Your task to perform on an android device: toggle data saver in the chrome app Image 0: 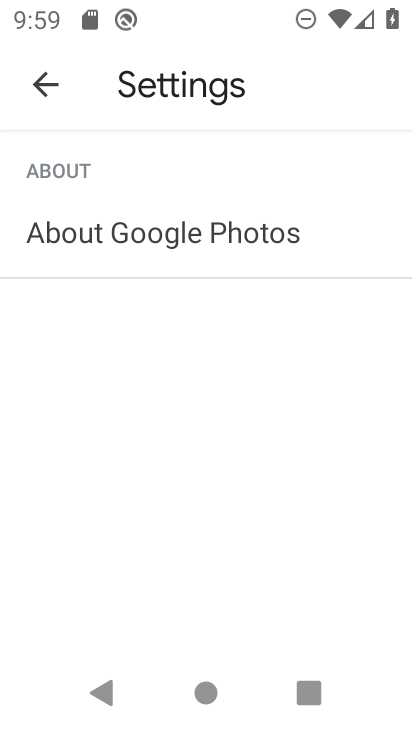
Step 0: press home button
Your task to perform on an android device: toggle data saver in the chrome app Image 1: 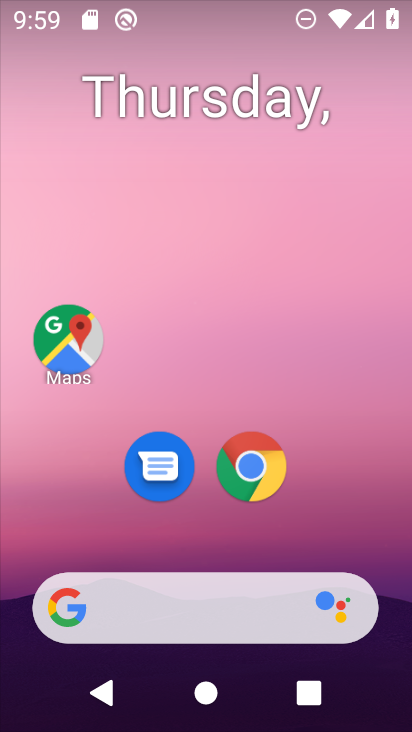
Step 1: drag from (314, 604) to (349, 121)
Your task to perform on an android device: toggle data saver in the chrome app Image 2: 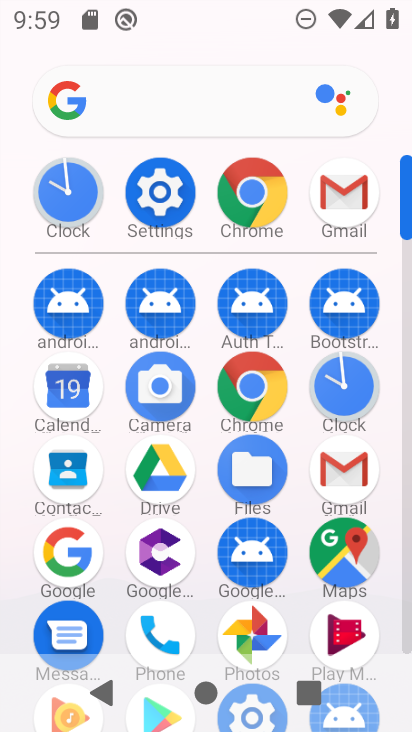
Step 2: click (251, 394)
Your task to perform on an android device: toggle data saver in the chrome app Image 3: 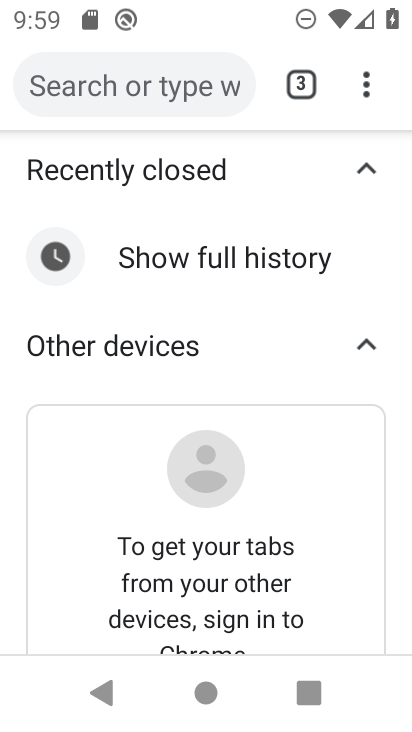
Step 3: drag from (371, 81) to (159, 534)
Your task to perform on an android device: toggle data saver in the chrome app Image 4: 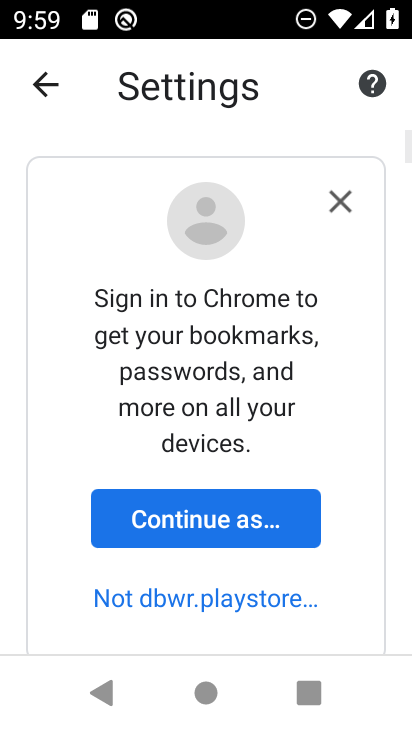
Step 4: drag from (326, 592) to (359, 331)
Your task to perform on an android device: toggle data saver in the chrome app Image 5: 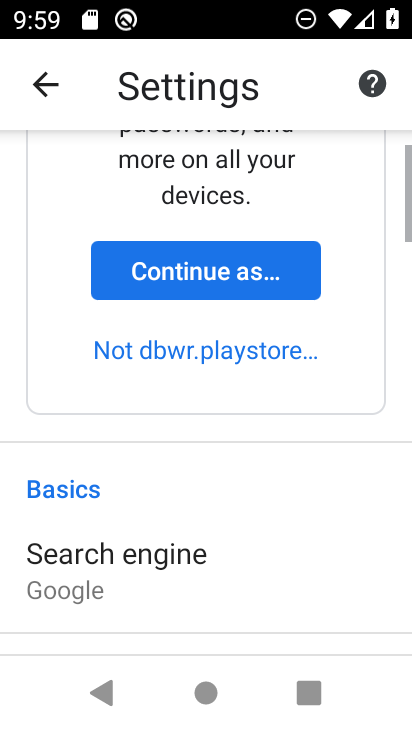
Step 5: drag from (333, 563) to (387, 74)
Your task to perform on an android device: toggle data saver in the chrome app Image 6: 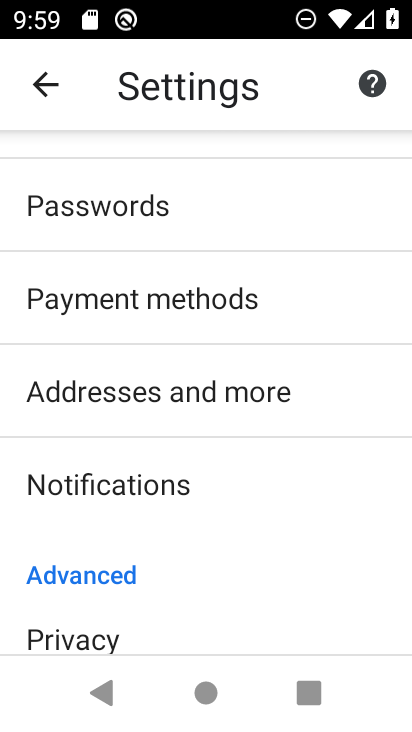
Step 6: drag from (362, 547) to (383, 92)
Your task to perform on an android device: toggle data saver in the chrome app Image 7: 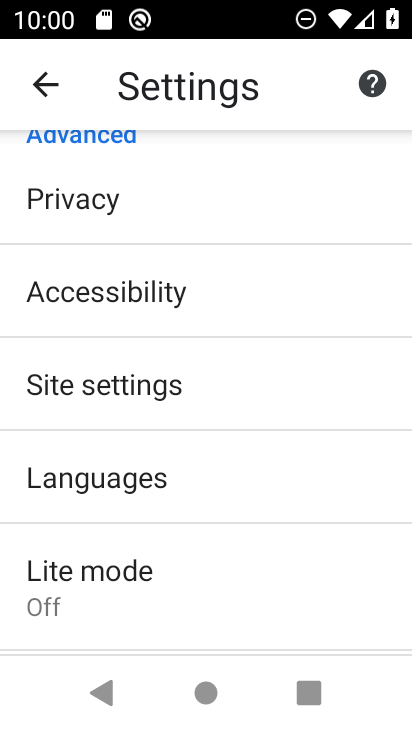
Step 7: click (170, 576)
Your task to perform on an android device: toggle data saver in the chrome app Image 8: 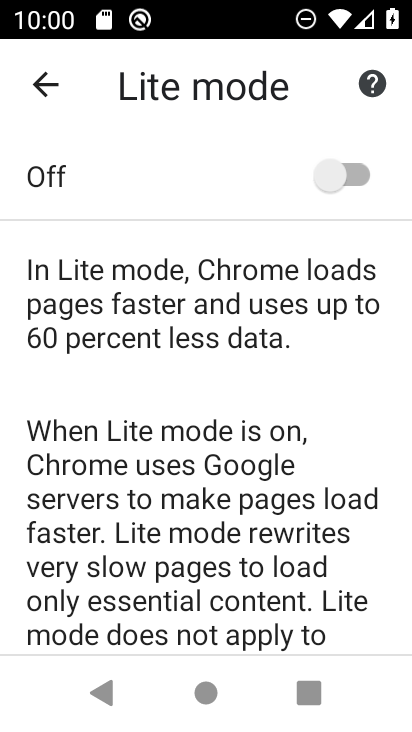
Step 8: click (346, 168)
Your task to perform on an android device: toggle data saver in the chrome app Image 9: 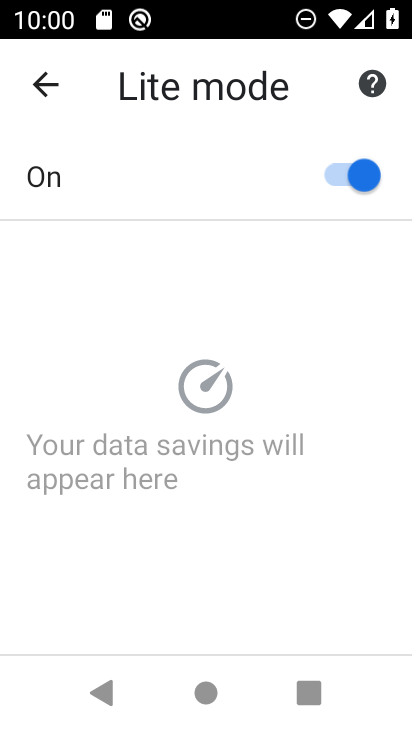
Step 9: task complete